Your task to perform on an android device: Empty the shopping cart on bestbuy. Search for logitech g502 on bestbuy, select the first entry, add it to the cart, then select checkout. Image 0: 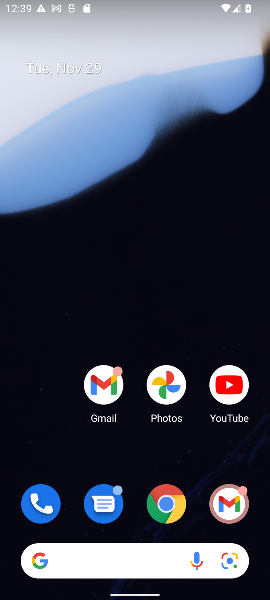
Step 0: click (168, 504)
Your task to perform on an android device: Empty the shopping cart on bestbuy. Search for logitech g502 on bestbuy, select the first entry, add it to the cart, then select checkout. Image 1: 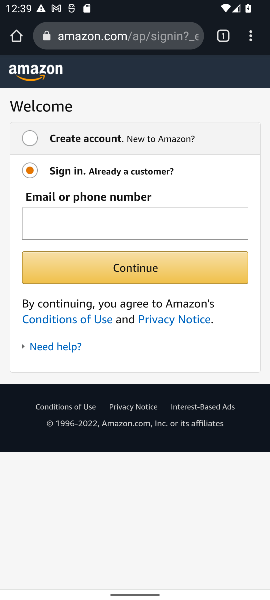
Step 1: click (116, 40)
Your task to perform on an android device: Empty the shopping cart on bestbuy. Search for logitech g502 on bestbuy, select the first entry, add it to the cart, then select checkout. Image 2: 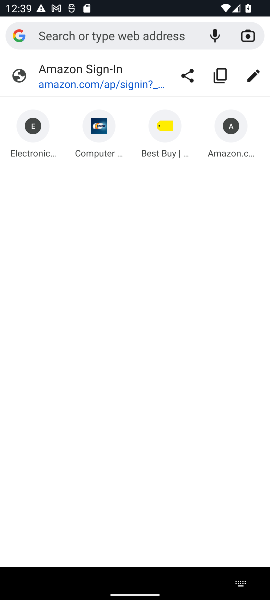
Step 2: click (154, 132)
Your task to perform on an android device: Empty the shopping cart on bestbuy. Search for logitech g502 on bestbuy, select the first entry, add it to the cart, then select checkout. Image 3: 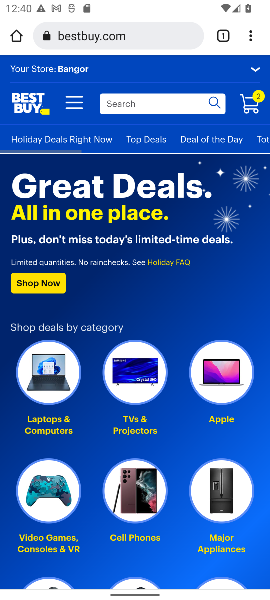
Step 3: click (251, 108)
Your task to perform on an android device: Empty the shopping cart on bestbuy. Search for logitech g502 on bestbuy, select the first entry, add it to the cart, then select checkout. Image 4: 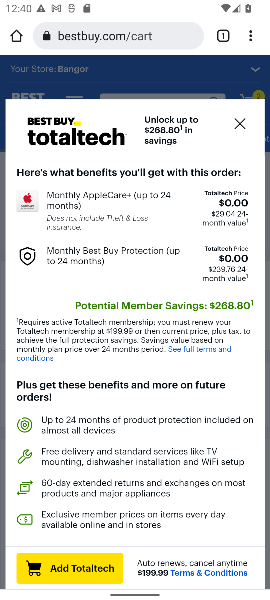
Step 4: click (239, 122)
Your task to perform on an android device: Empty the shopping cart on bestbuy. Search for logitech g502 on bestbuy, select the first entry, add it to the cart, then select checkout. Image 5: 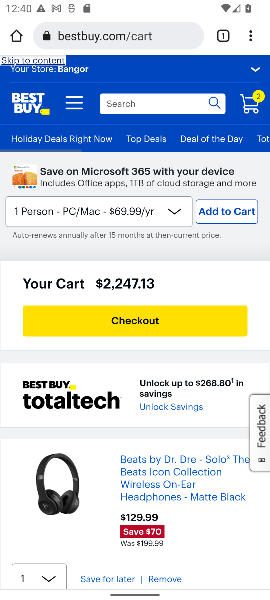
Step 5: click (254, 107)
Your task to perform on an android device: Empty the shopping cart on bestbuy. Search for logitech g502 on bestbuy, select the first entry, add it to the cart, then select checkout. Image 6: 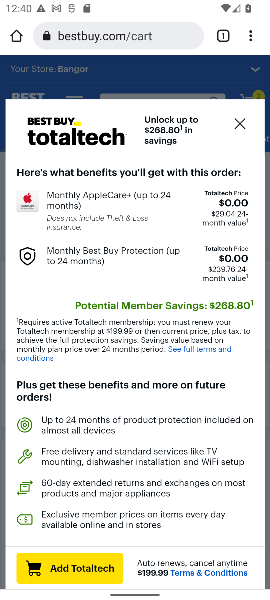
Step 6: click (240, 122)
Your task to perform on an android device: Empty the shopping cart on bestbuy. Search for logitech g502 on bestbuy, select the first entry, add it to the cart, then select checkout. Image 7: 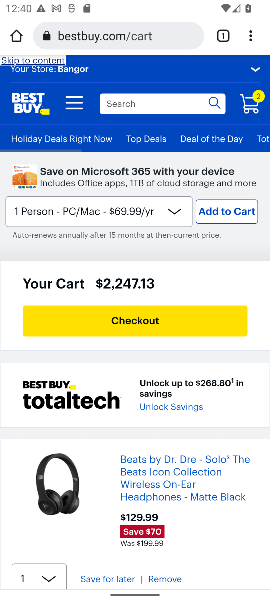
Step 7: drag from (102, 403) to (80, 169)
Your task to perform on an android device: Empty the shopping cart on bestbuy. Search for logitech g502 on bestbuy, select the first entry, add it to the cart, then select checkout. Image 8: 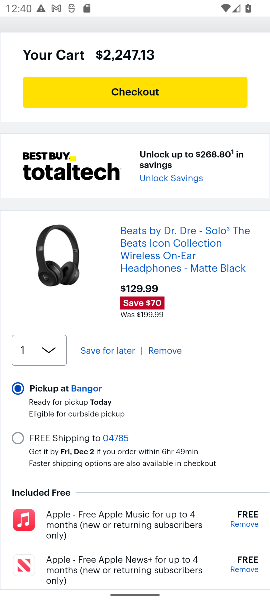
Step 8: click (169, 347)
Your task to perform on an android device: Empty the shopping cart on bestbuy. Search for logitech g502 on bestbuy, select the first entry, add it to the cart, then select checkout. Image 9: 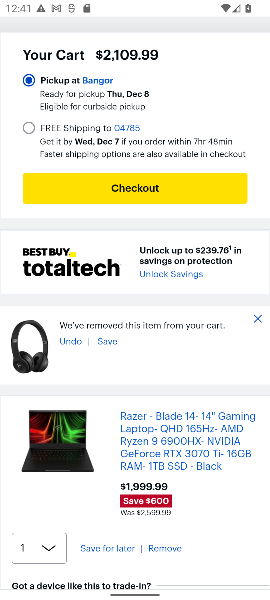
Step 9: click (163, 552)
Your task to perform on an android device: Empty the shopping cart on bestbuy. Search for logitech g502 on bestbuy, select the first entry, add it to the cart, then select checkout. Image 10: 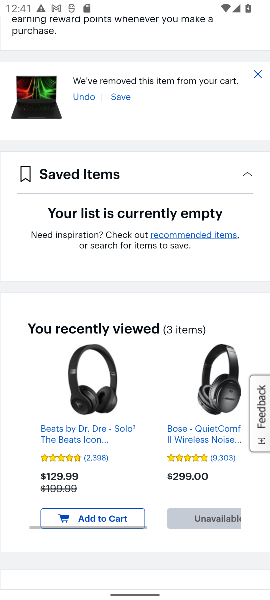
Step 10: drag from (141, 144) to (93, 299)
Your task to perform on an android device: Empty the shopping cart on bestbuy. Search for logitech g502 on bestbuy, select the first entry, add it to the cart, then select checkout. Image 11: 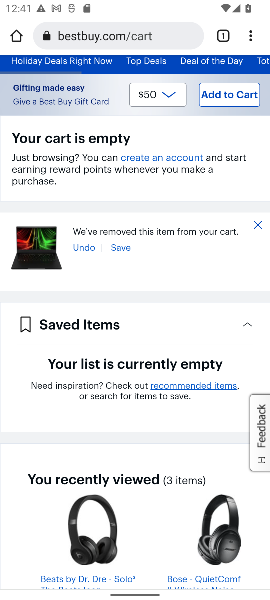
Step 11: drag from (87, 117) to (75, 229)
Your task to perform on an android device: Empty the shopping cart on bestbuy. Search for logitech g502 on bestbuy, select the first entry, add it to the cart, then select checkout. Image 12: 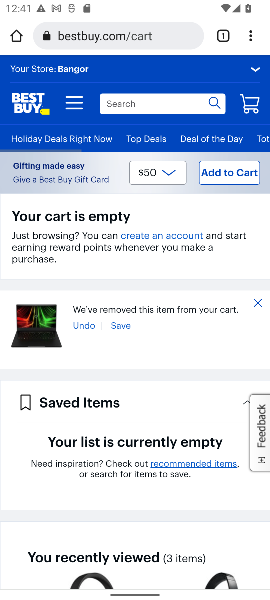
Step 12: click (115, 101)
Your task to perform on an android device: Empty the shopping cart on bestbuy. Search for logitech g502 on bestbuy, select the first entry, add it to the cart, then select checkout. Image 13: 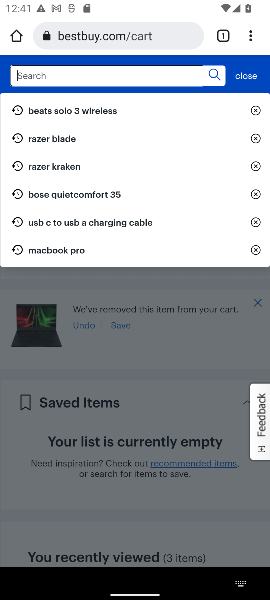
Step 13: type "logitech g502"
Your task to perform on an android device: Empty the shopping cart on bestbuy. Search for logitech g502 on bestbuy, select the first entry, add it to the cart, then select checkout. Image 14: 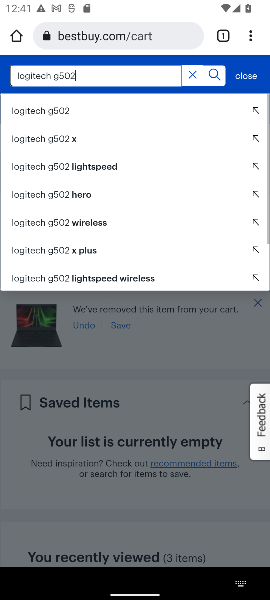
Step 14: click (27, 111)
Your task to perform on an android device: Empty the shopping cart on bestbuy. Search for logitech g502 on bestbuy, select the first entry, add it to the cart, then select checkout. Image 15: 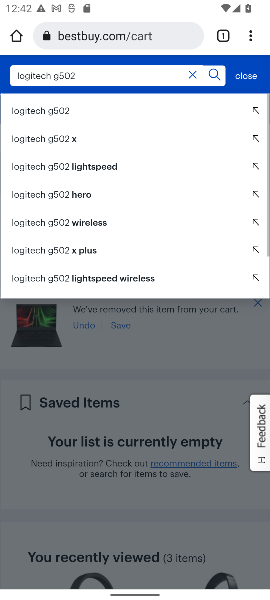
Step 15: click (48, 112)
Your task to perform on an android device: Empty the shopping cart on bestbuy. Search for logitech g502 on bestbuy, select the first entry, add it to the cart, then select checkout. Image 16: 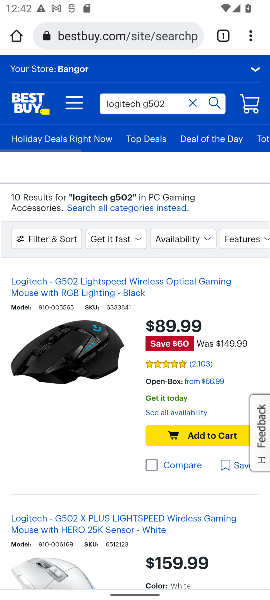
Step 16: click (217, 432)
Your task to perform on an android device: Empty the shopping cart on bestbuy. Search for logitech g502 on bestbuy, select the first entry, add it to the cart, then select checkout. Image 17: 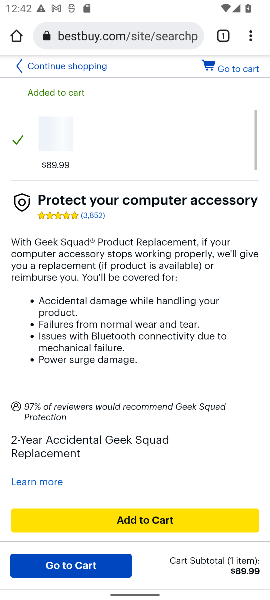
Step 17: click (240, 72)
Your task to perform on an android device: Empty the shopping cart on bestbuy. Search for logitech g502 on bestbuy, select the first entry, add it to the cart, then select checkout. Image 18: 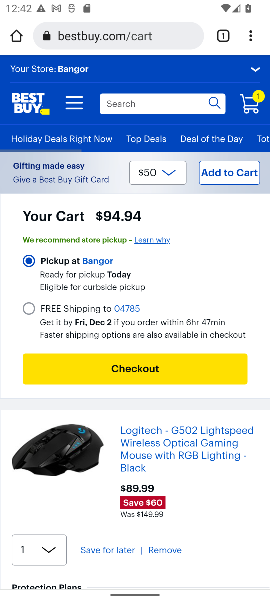
Step 18: click (131, 366)
Your task to perform on an android device: Empty the shopping cart on bestbuy. Search for logitech g502 on bestbuy, select the first entry, add it to the cart, then select checkout. Image 19: 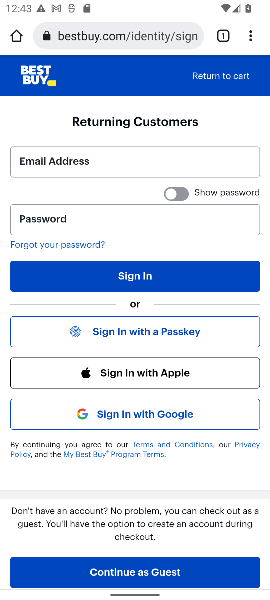
Step 19: task complete